Your task to perform on an android device: turn off improve location accuracy Image 0: 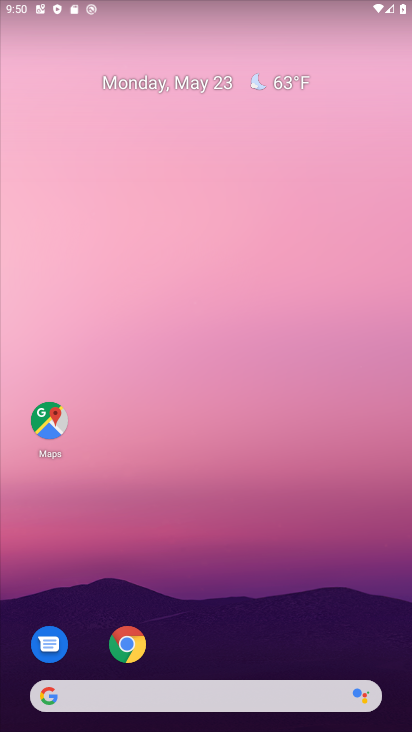
Step 0: press home button
Your task to perform on an android device: turn off improve location accuracy Image 1: 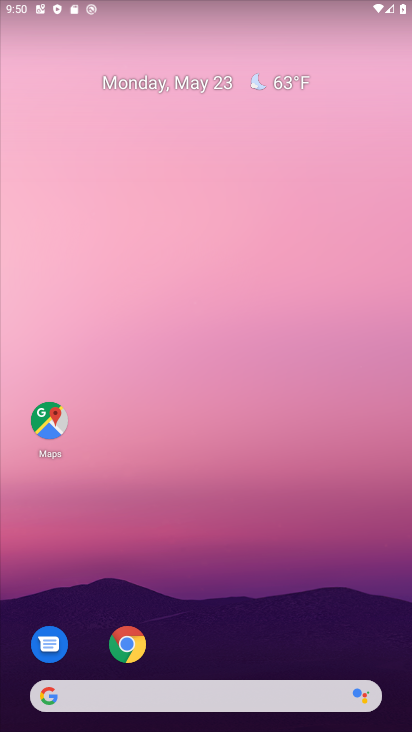
Step 1: drag from (219, 661) to (221, 200)
Your task to perform on an android device: turn off improve location accuracy Image 2: 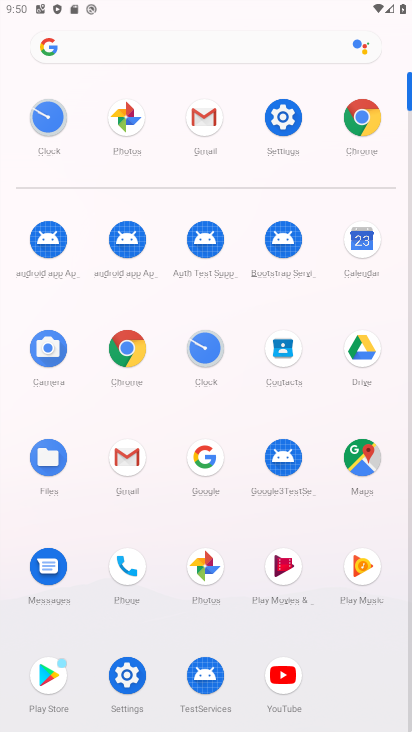
Step 2: click (131, 672)
Your task to perform on an android device: turn off improve location accuracy Image 3: 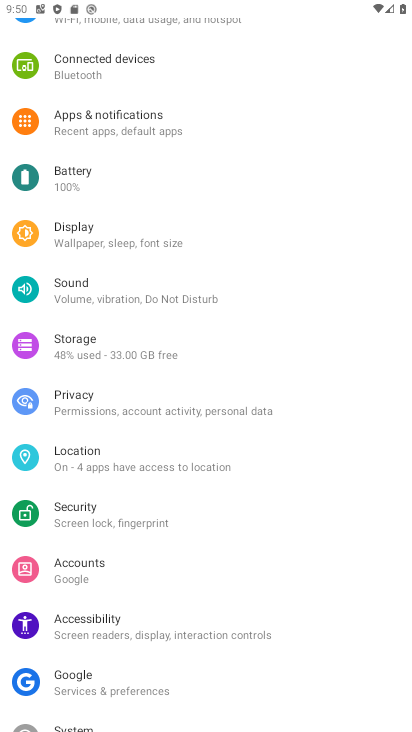
Step 3: click (106, 456)
Your task to perform on an android device: turn off improve location accuracy Image 4: 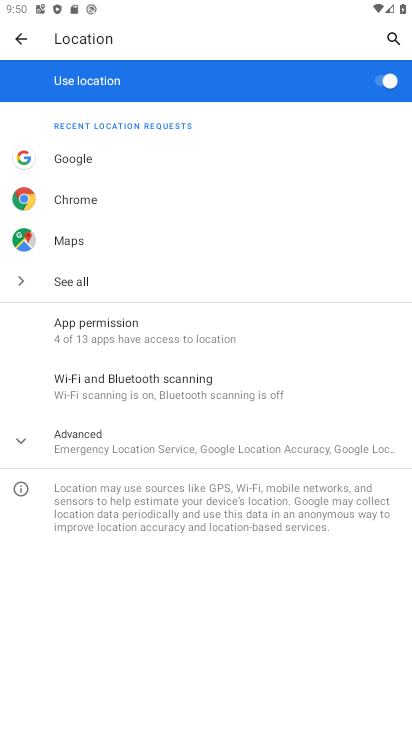
Step 4: click (24, 446)
Your task to perform on an android device: turn off improve location accuracy Image 5: 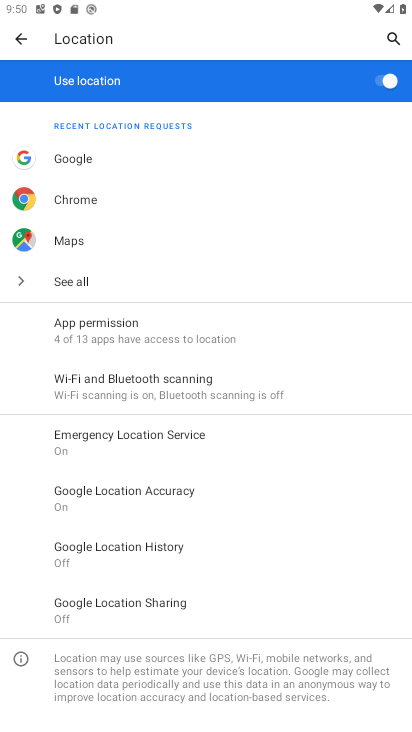
Step 5: click (137, 496)
Your task to perform on an android device: turn off improve location accuracy Image 6: 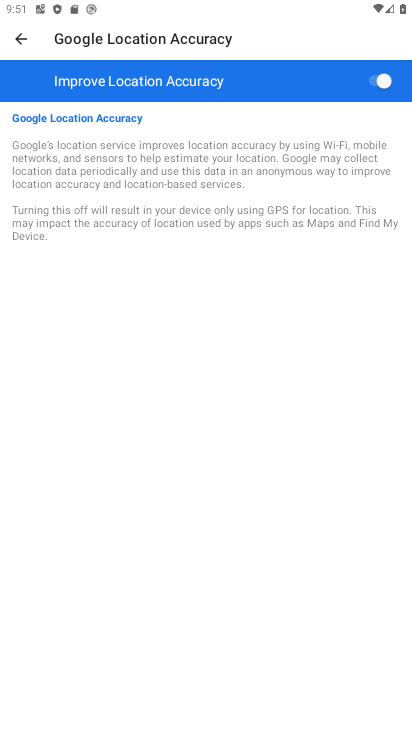
Step 6: click (378, 74)
Your task to perform on an android device: turn off improve location accuracy Image 7: 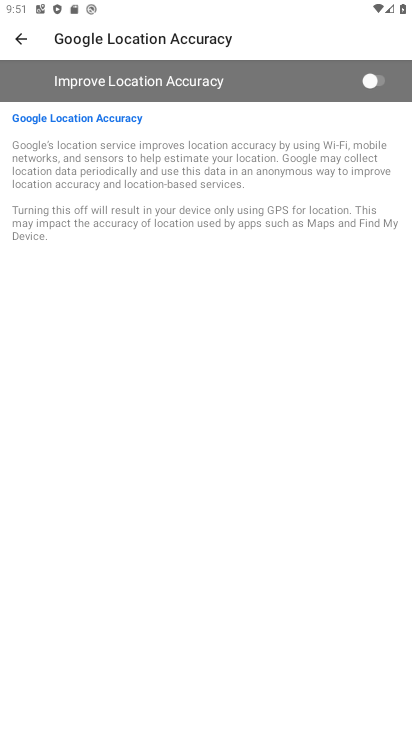
Step 7: task complete